Your task to perform on an android device: Open Maps and search for coffee Image 0: 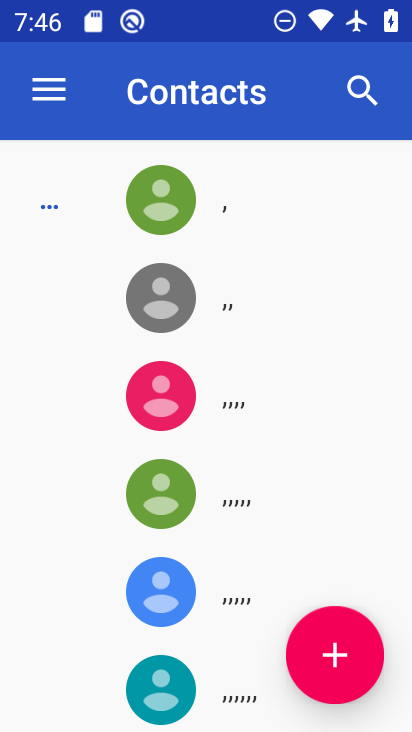
Step 0: press home button
Your task to perform on an android device: Open Maps and search for coffee Image 1: 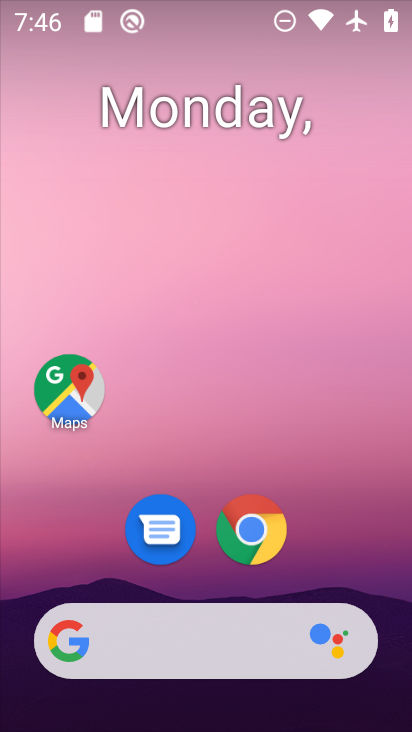
Step 1: click (67, 394)
Your task to perform on an android device: Open Maps and search for coffee Image 2: 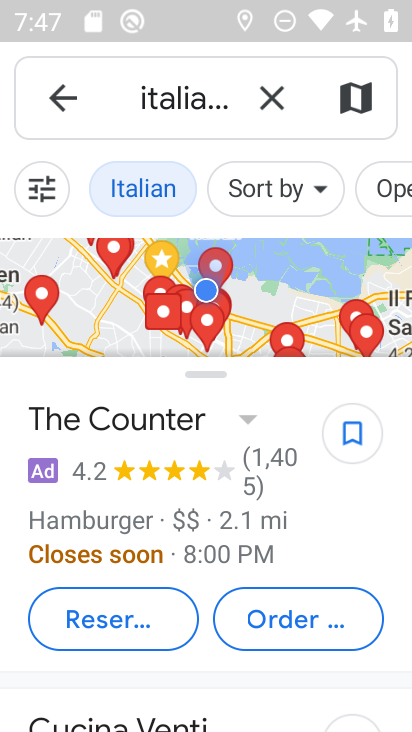
Step 2: click (269, 85)
Your task to perform on an android device: Open Maps and search for coffee Image 3: 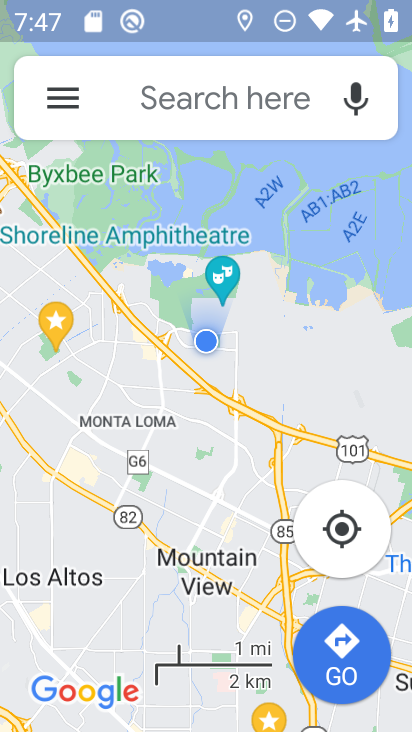
Step 3: click (194, 92)
Your task to perform on an android device: Open Maps and search for coffee Image 4: 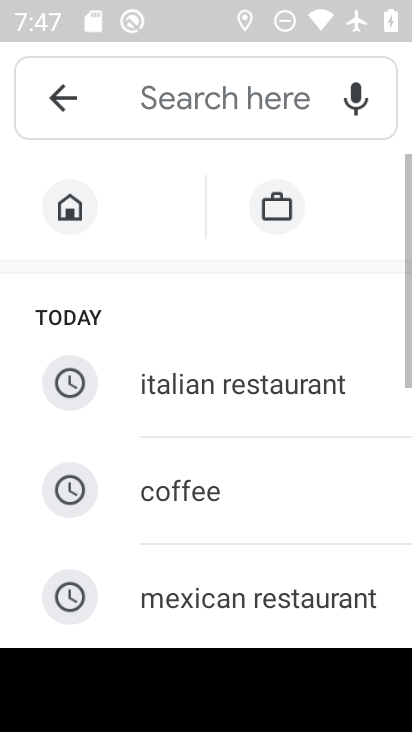
Step 4: click (171, 89)
Your task to perform on an android device: Open Maps and search for coffee Image 5: 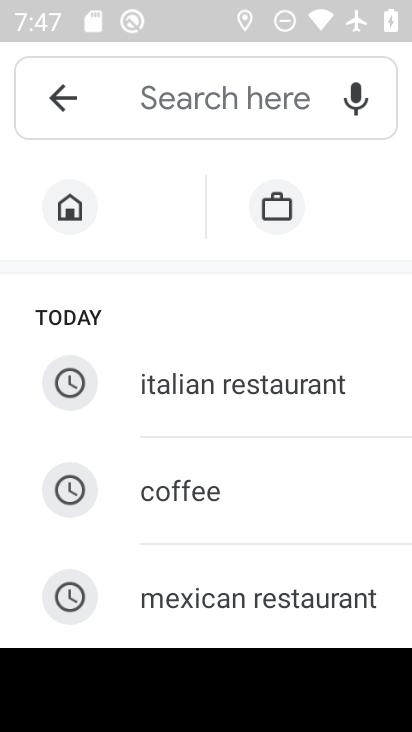
Step 5: click (186, 484)
Your task to perform on an android device: Open Maps and search for coffee Image 6: 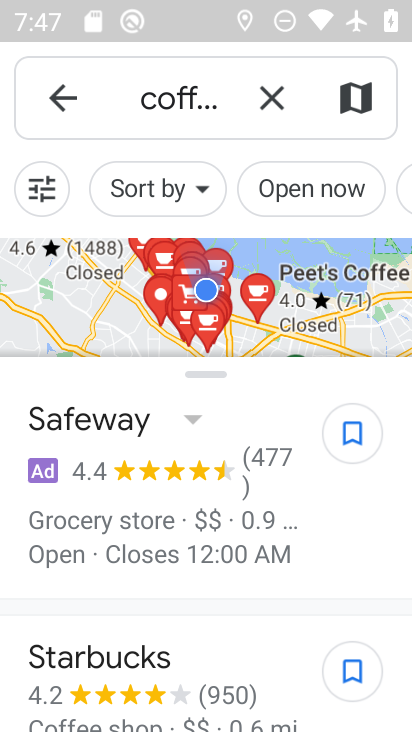
Step 6: task complete